Your task to perform on an android device: Go to display settings Image 0: 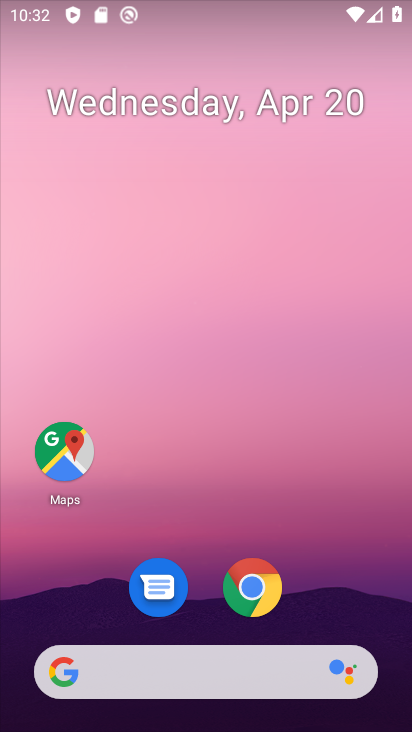
Step 0: drag from (338, 494) to (219, 17)
Your task to perform on an android device: Go to display settings Image 1: 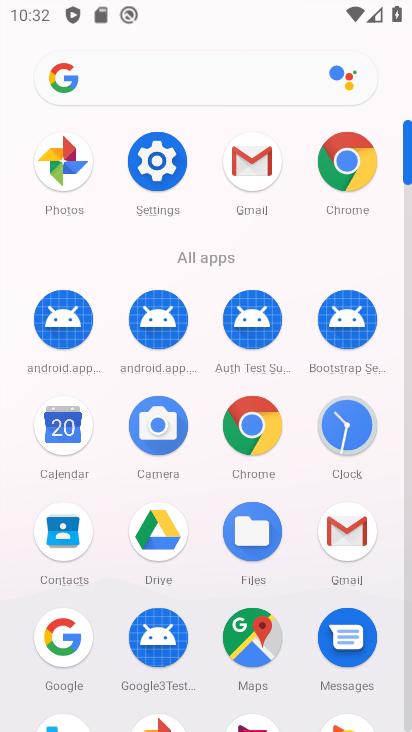
Step 1: click (156, 157)
Your task to perform on an android device: Go to display settings Image 2: 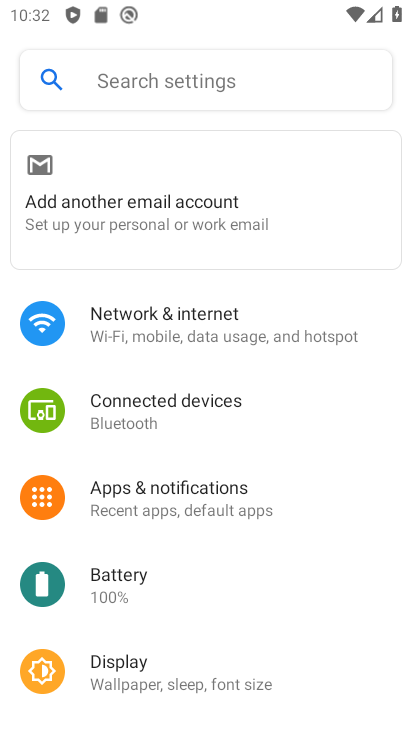
Step 2: drag from (288, 557) to (294, 233)
Your task to perform on an android device: Go to display settings Image 3: 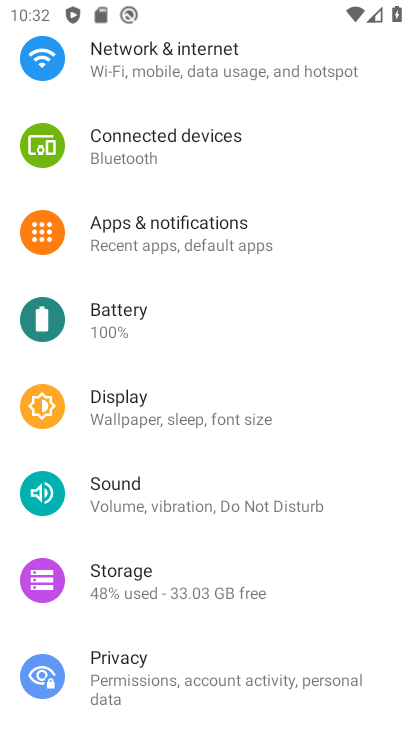
Step 3: click (198, 416)
Your task to perform on an android device: Go to display settings Image 4: 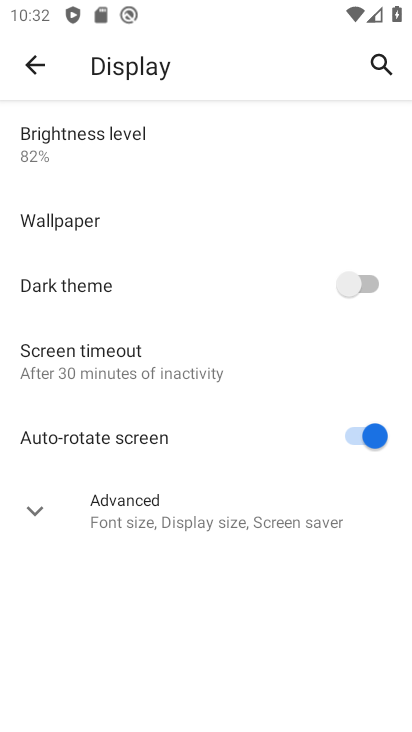
Step 4: click (42, 508)
Your task to perform on an android device: Go to display settings Image 5: 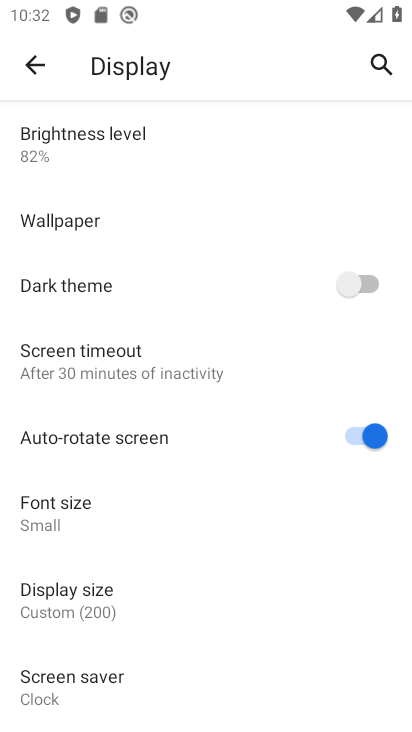
Step 5: task complete